Your task to perform on an android device: open app "Walmart Shopping & Grocery" (install if not already installed) Image 0: 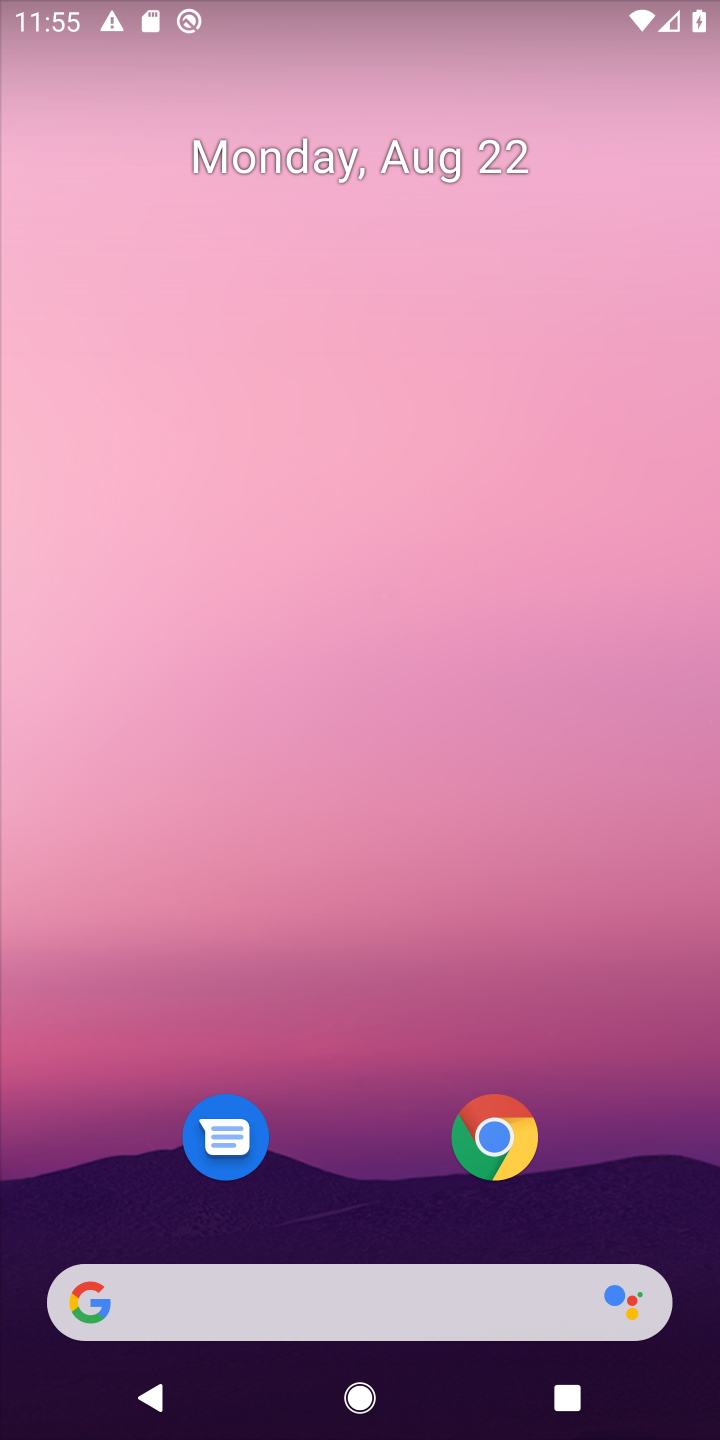
Step 0: drag from (330, 1155) to (394, 6)
Your task to perform on an android device: open app "Walmart Shopping & Grocery" (install if not already installed) Image 1: 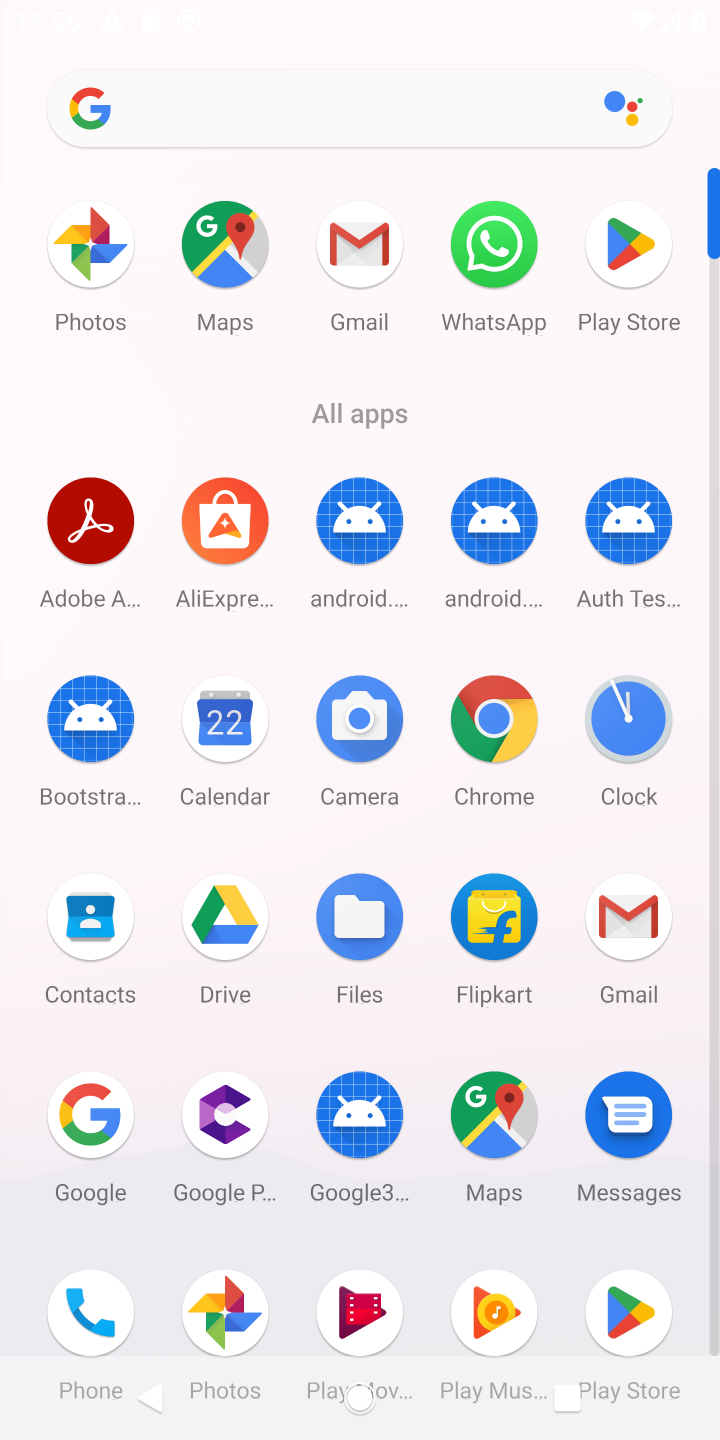
Step 1: click (621, 242)
Your task to perform on an android device: open app "Walmart Shopping & Grocery" (install if not already installed) Image 2: 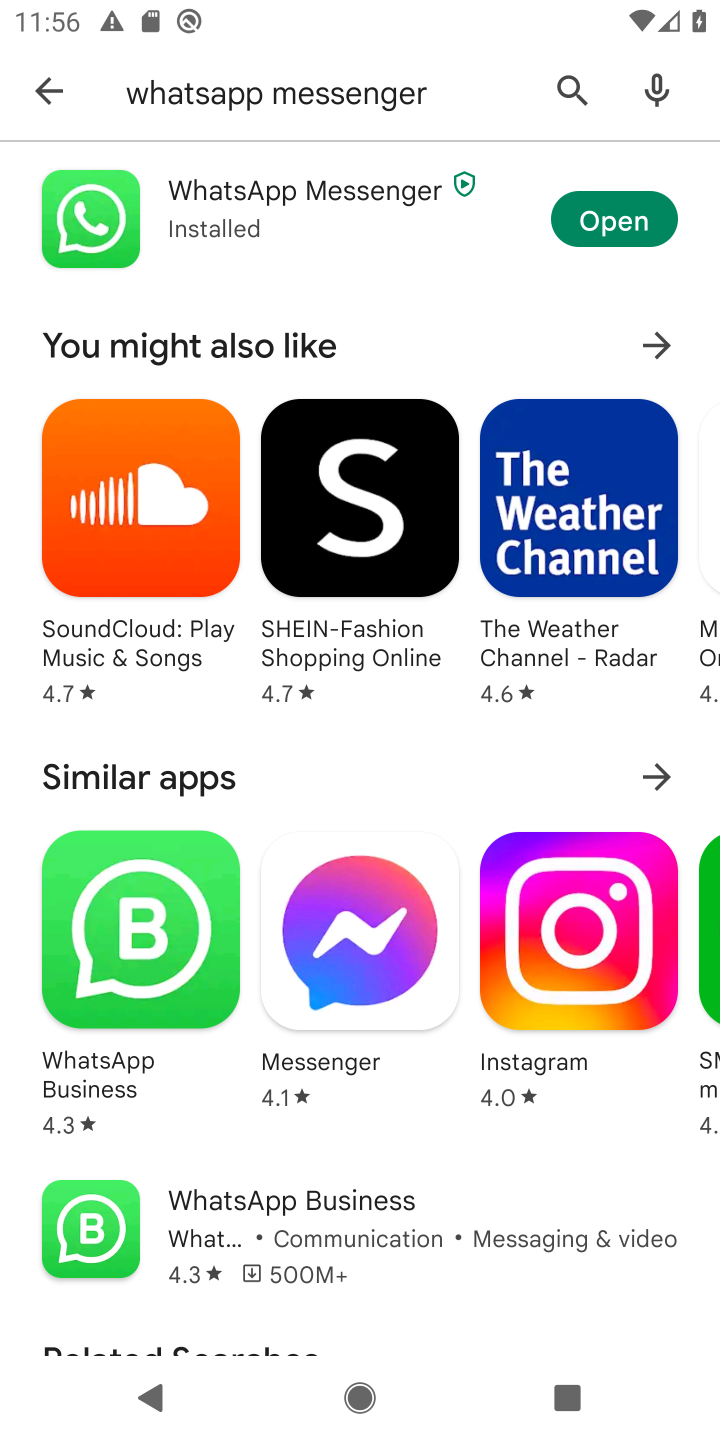
Step 2: click (54, 78)
Your task to perform on an android device: open app "Walmart Shopping & Grocery" (install if not already installed) Image 3: 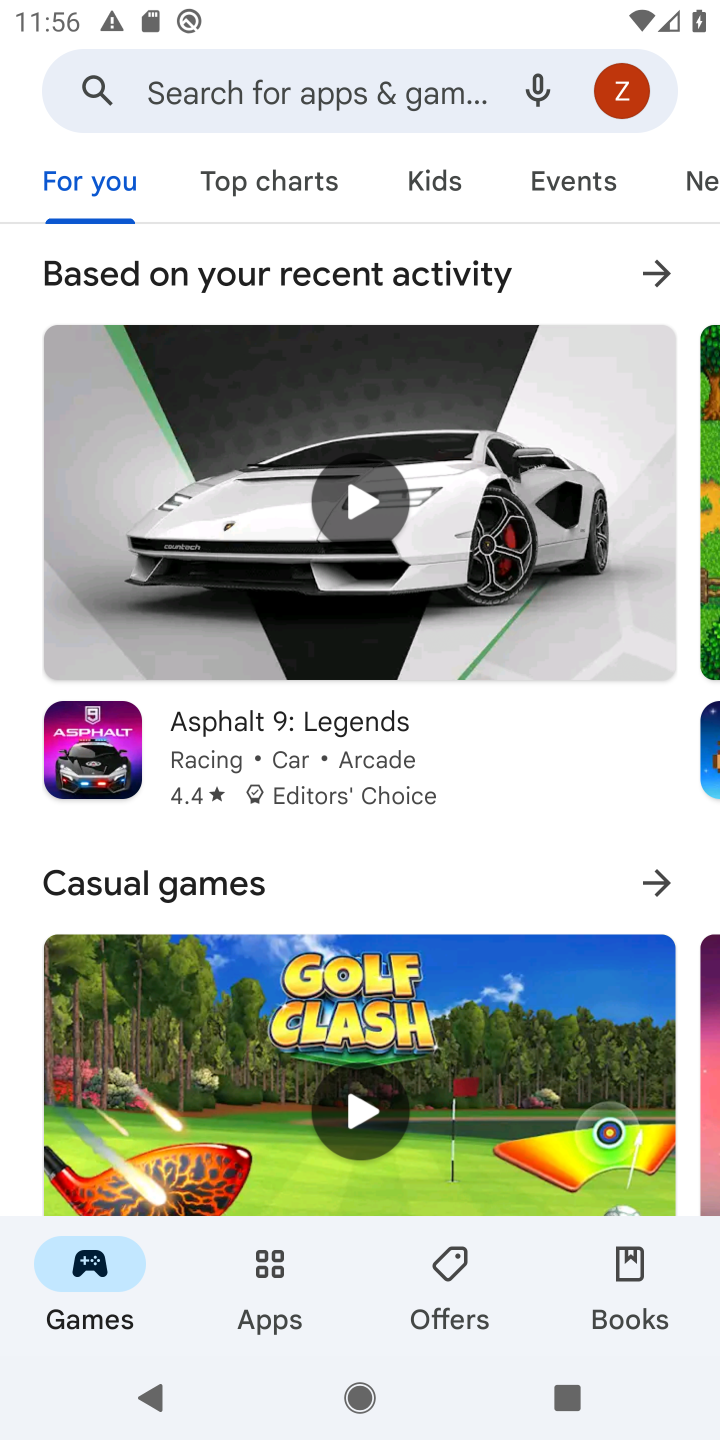
Step 3: click (267, 92)
Your task to perform on an android device: open app "Walmart Shopping & Grocery" (install if not already installed) Image 4: 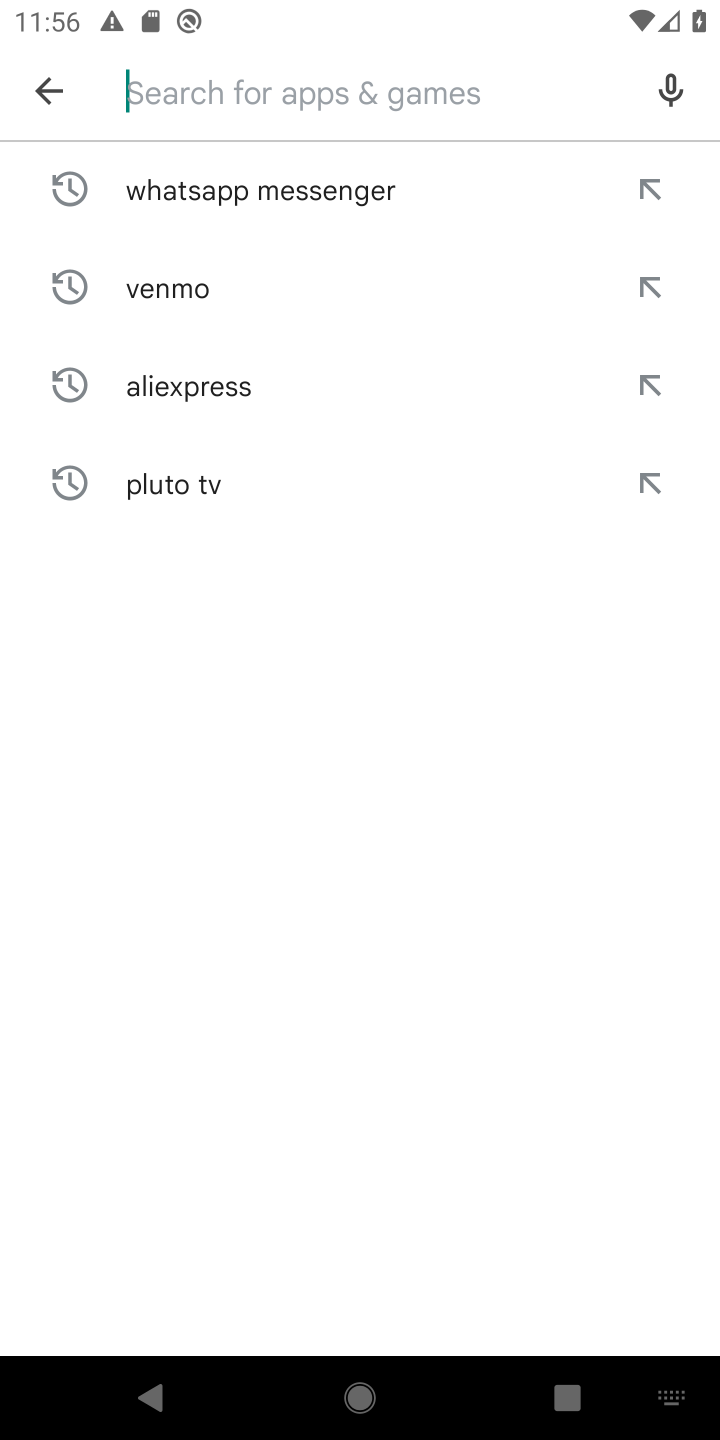
Step 4: type "Walmart Shopping & Grocery"
Your task to perform on an android device: open app "Walmart Shopping & Grocery" (install if not already installed) Image 5: 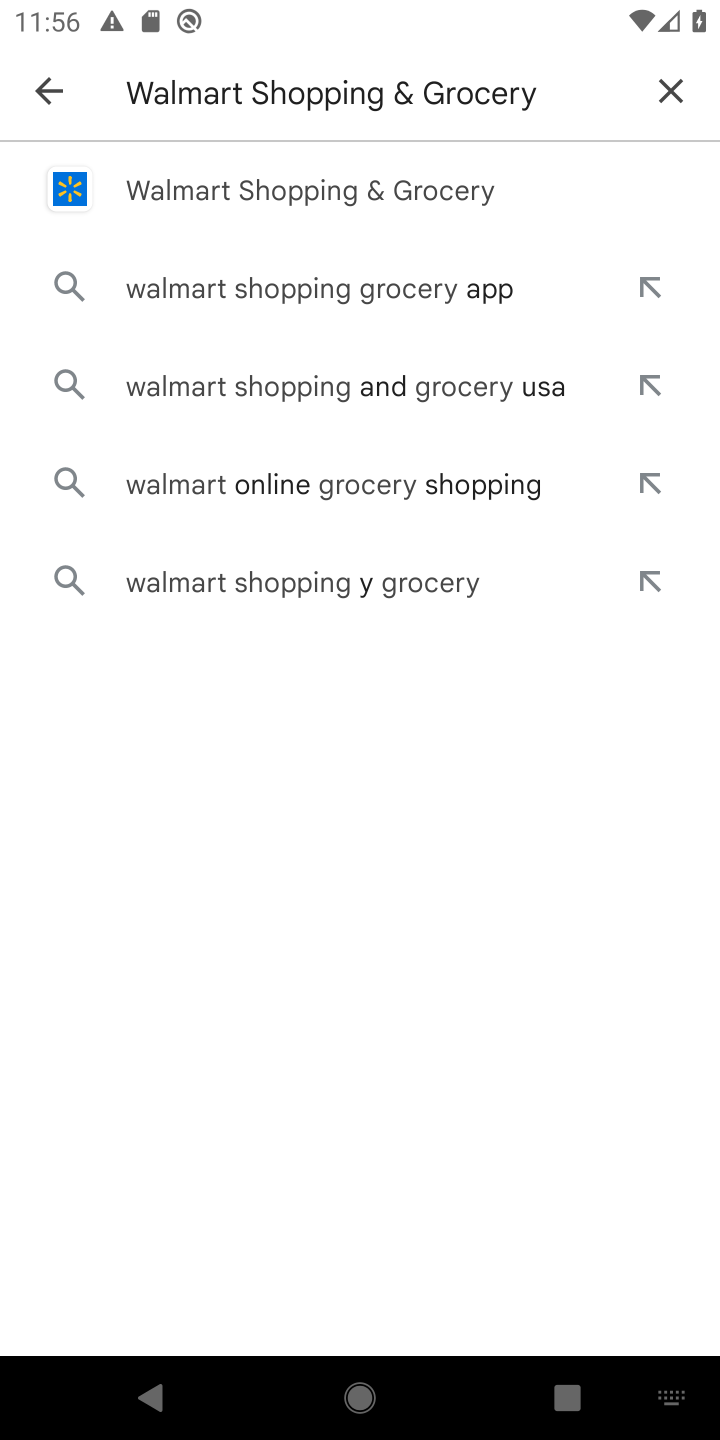
Step 5: click (310, 179)
Your task to perform on an android device: open app "Walmart Shopping & Grocery" (install if not already installed) Image 6: 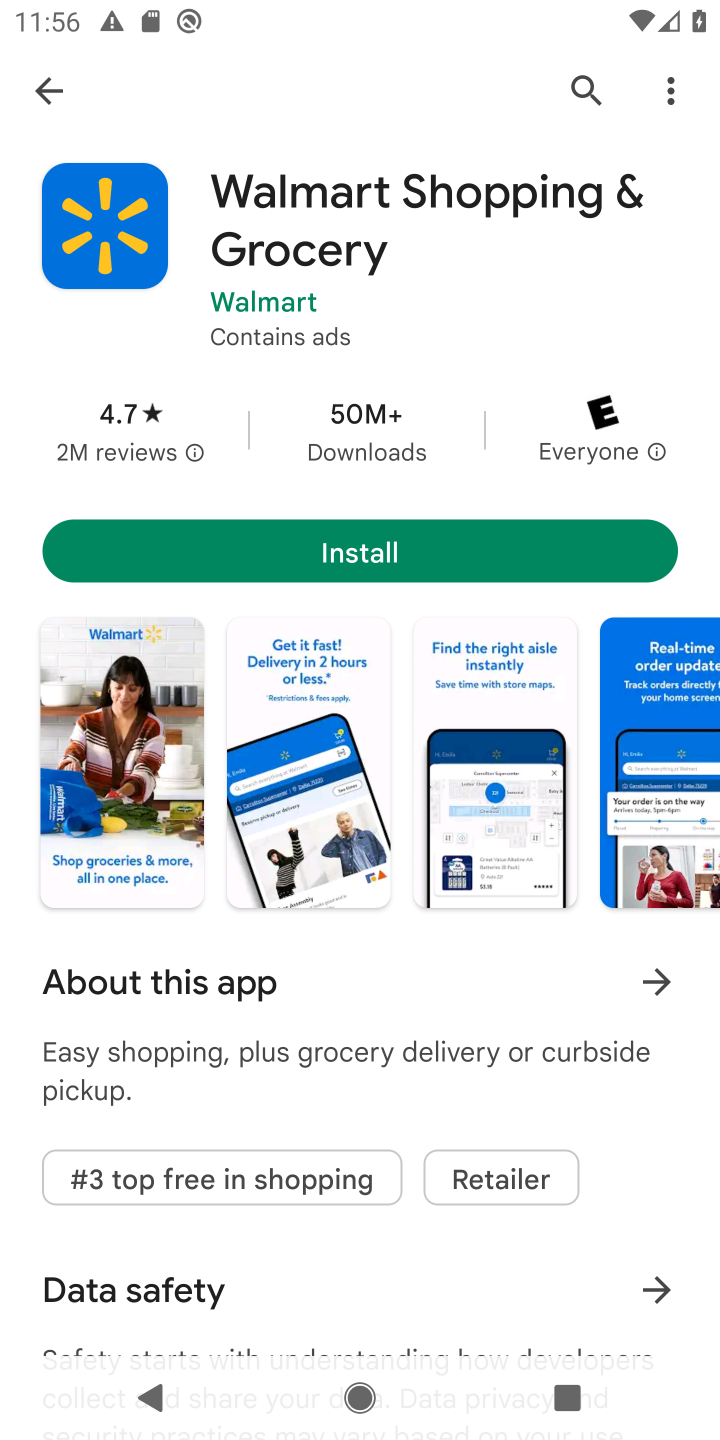
Step 6: click (382, 544)
Your task to perform on an android device: open app "Walmart Shopping & Grocery" (install if not already installed) Image 7: 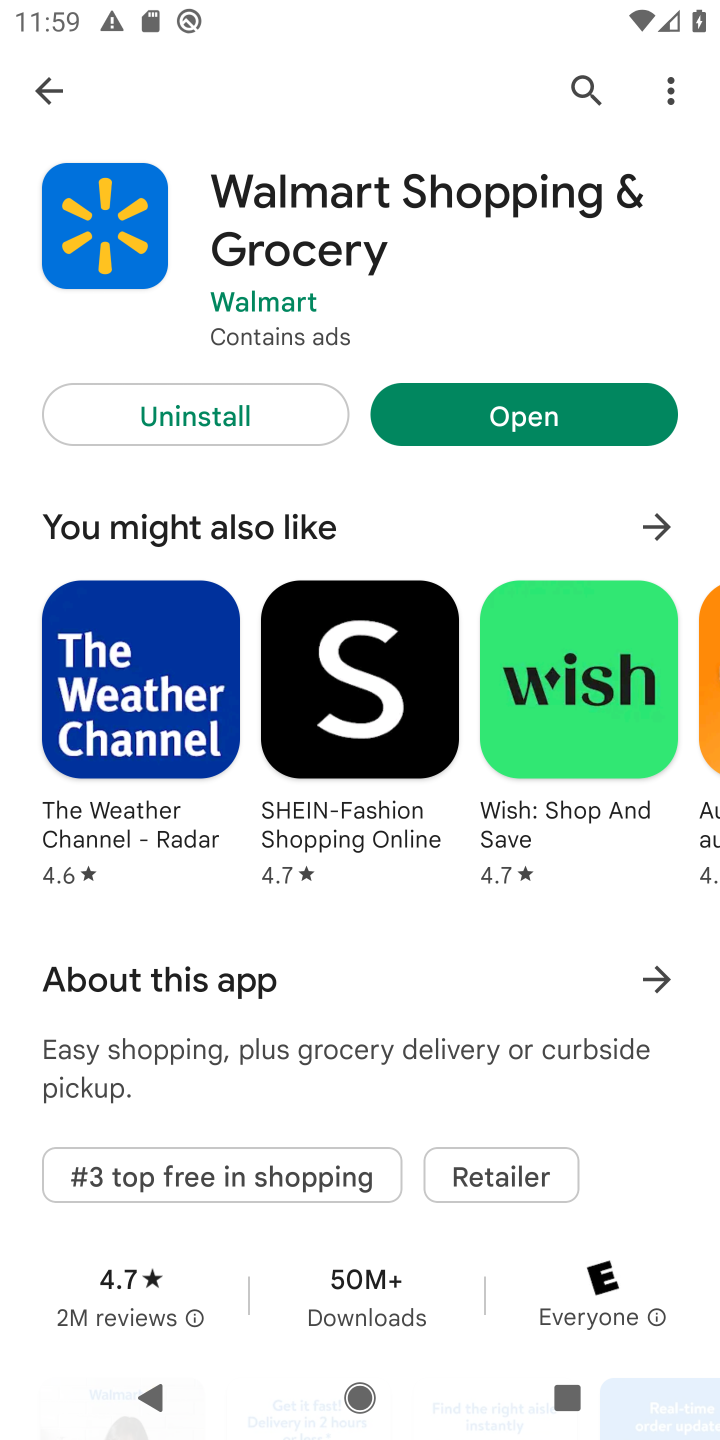
Step 7: click (514, 419)
Your task to perform on an android device: open app "Walmart Shopping & Grocery" (install if not already installed) Image 8: 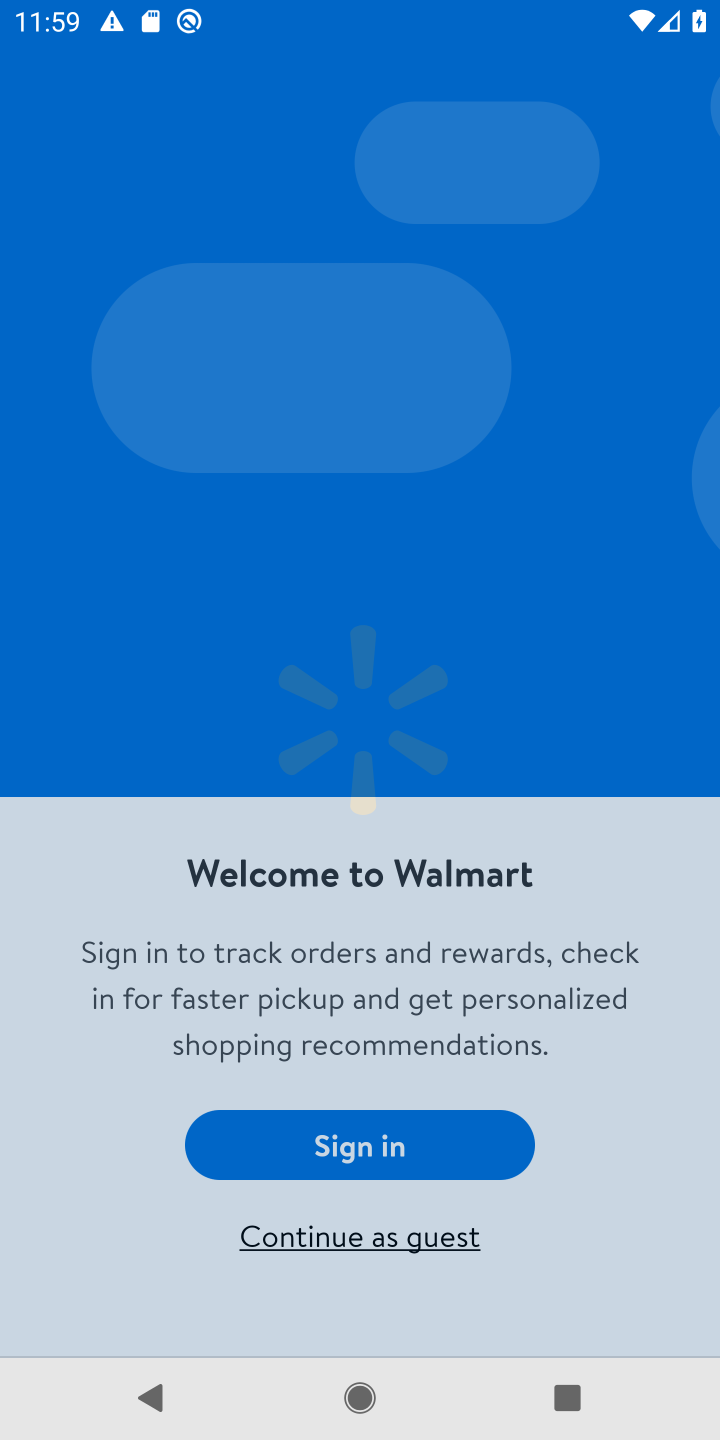
Step 8: task complete